Your task to perform on an android device: Go to privacy settings Image 0: 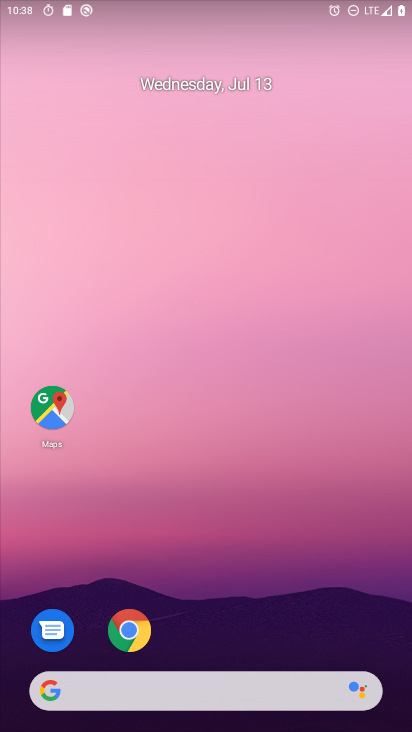
Step 0: drag from (382, 646) to (217, 14)
Your task to perform on an android device: Go to privacy settings Image 1: 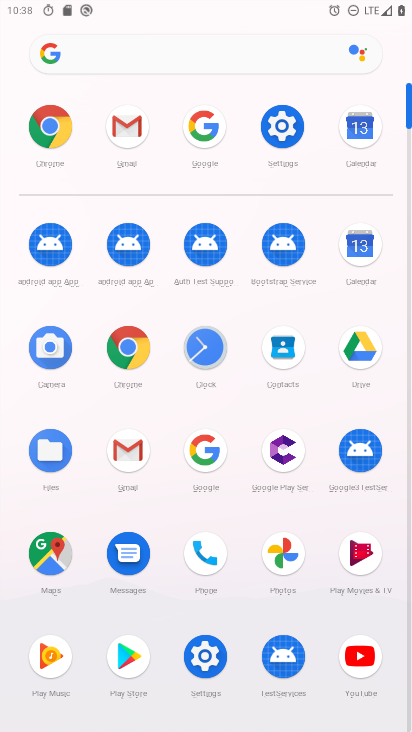
Step 1: click (199, 662)
Your task to perform on an android device: Go to privacy settings Image 2: 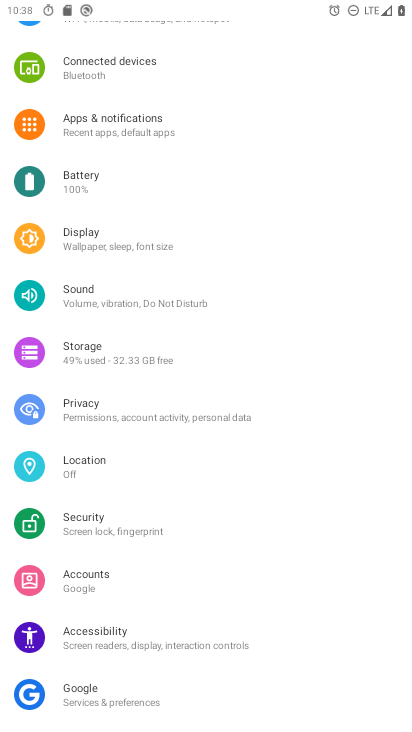
Step 2: click (67, 410)
Your task to perform on an android device: Go to privacy settings Image 3: 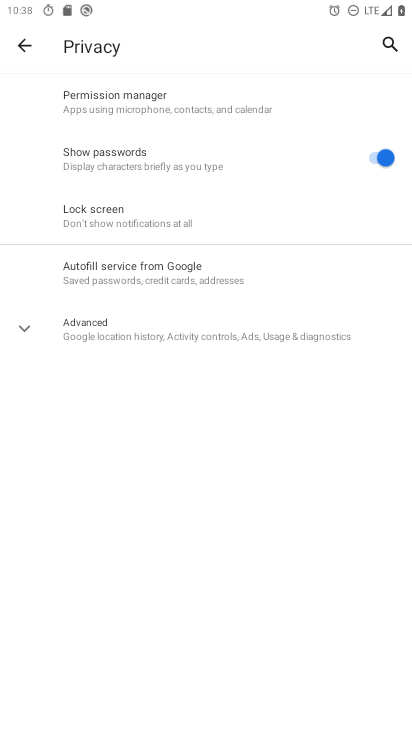
Step 3: task complete